Your task to perform on an android device: Open internet settings Image 0: 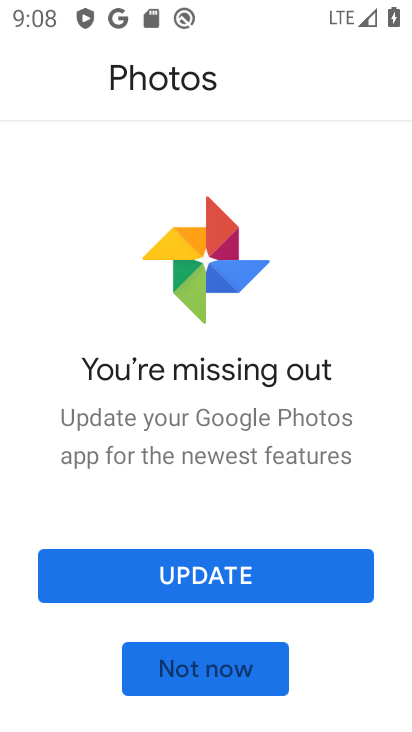
Step 0: click (242, 681)
Your task to perform on an android device: Open internet settings Image 1: 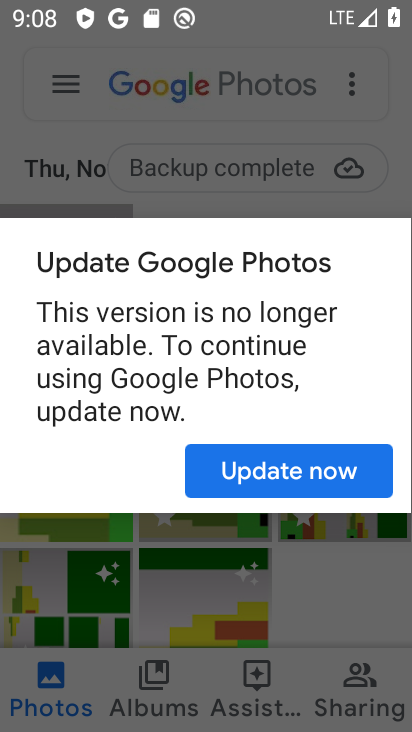
Step 1: press home button
Your task to perform on an android device: Open internet settings Image 2: 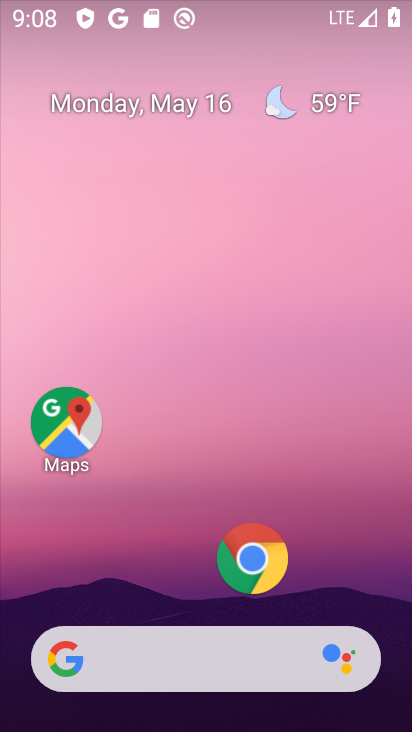
Step 2: drag from (137, 557) to (238, 116)
Your task to perform on an android device: Open internet settings Image 3: 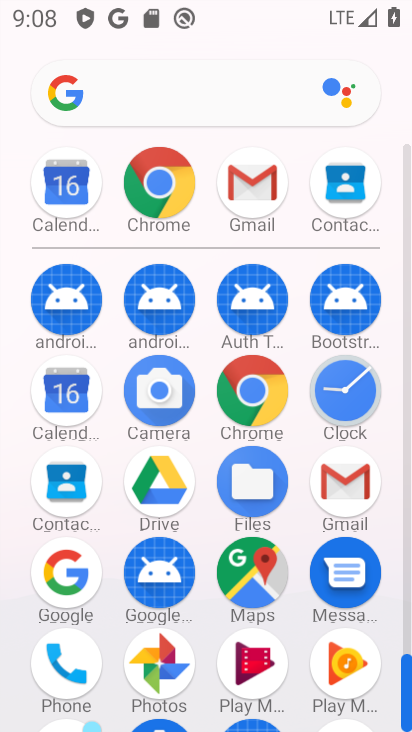
Step 3: drag from (190, 543) to (261, 67)
Your task to perform on an android device: Open internet settings Image 4: 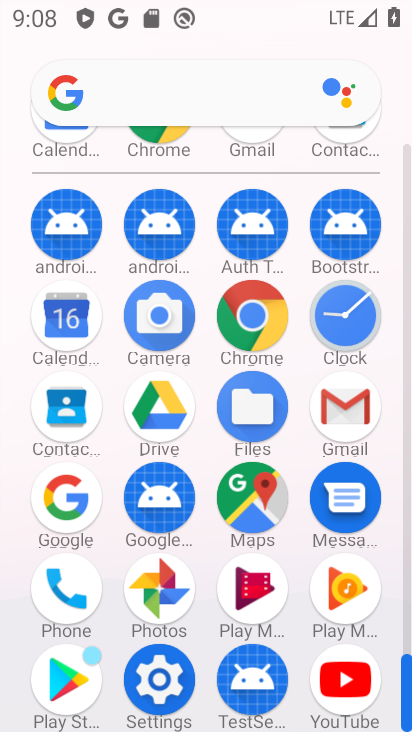
Step 4: click (188, 671)
Your task to perform on an android device: Open internet settings Image 5: 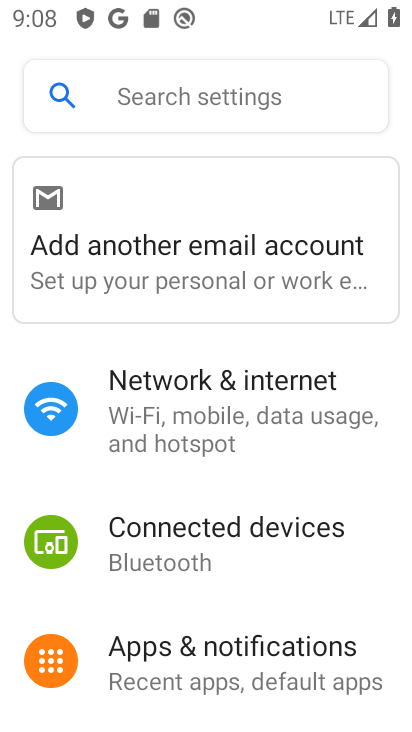
Step 5: click (226, 420)
Your task to perform on an android device: Open internet settings Image 6: 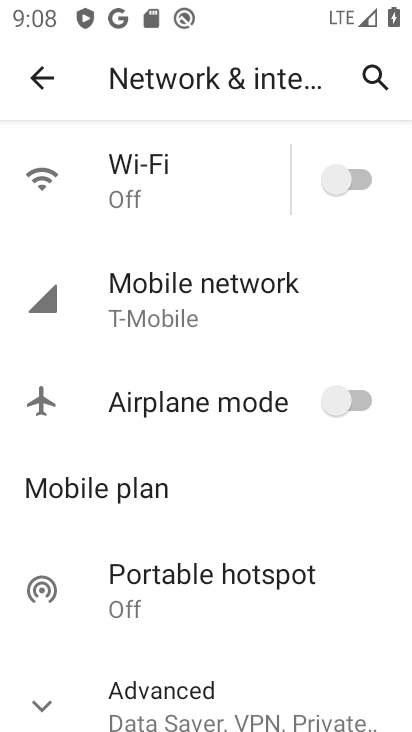
Step 6: task complete